Your task to perform on an android device: toggle notification dots Image 0: 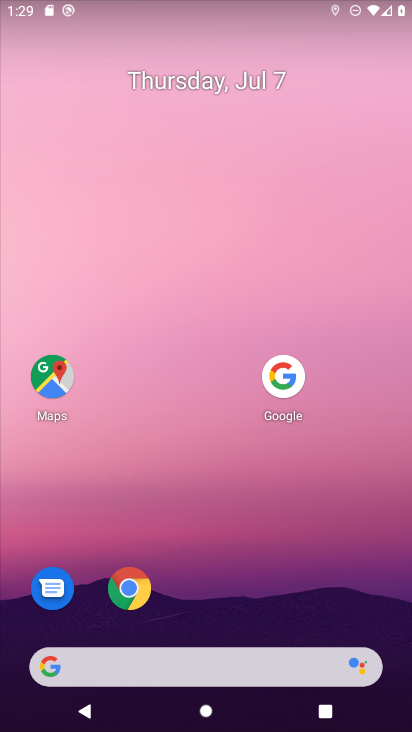
Step 0: drag from (183, 672) to (411, 88)
Your task to perform on an android device: toggle notification dots Image 1: 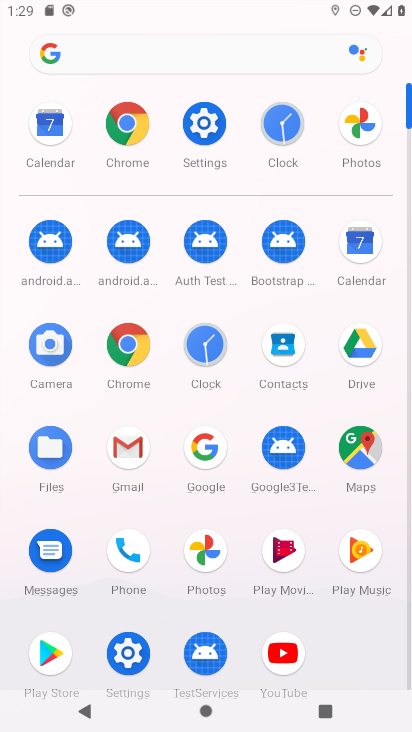
Step 1: click (207, 122)
Your task to perform on an android device: toggle notification dots Image 2: 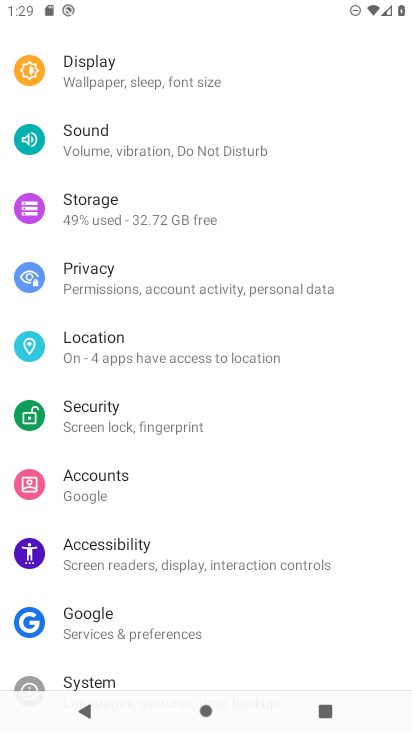
Step 2: drag from (235, 126) to (75, 594)
Your task to perform on an android device: toggle notification dots Image 3: 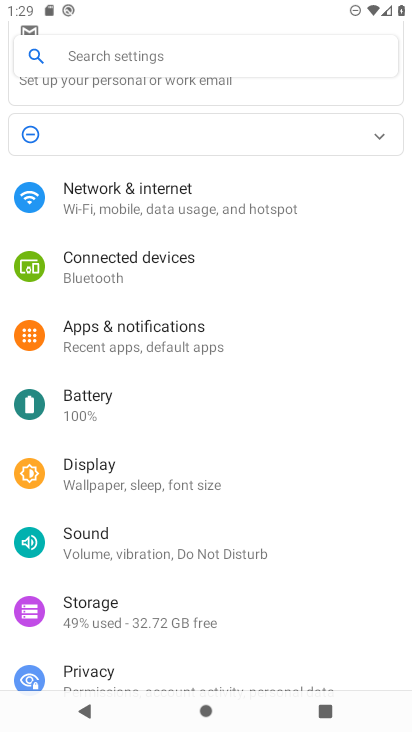
Step 3: click (157, 330)
Your task to perform on an android device: toggle notification dots Image 4: 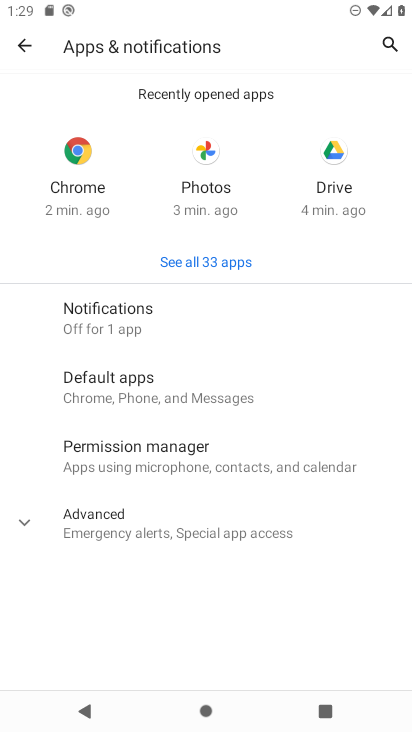
Step 4: click (144, 318)
Your task to perform on an android device: toggle notification dots Image 5: 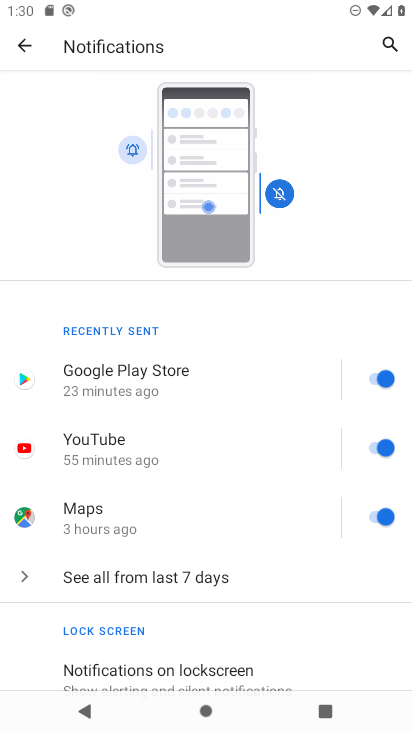
Step 5: drag from (249, 446) to (391, 132)
Your task to perform on an android device: toggle notification dots Image 6: 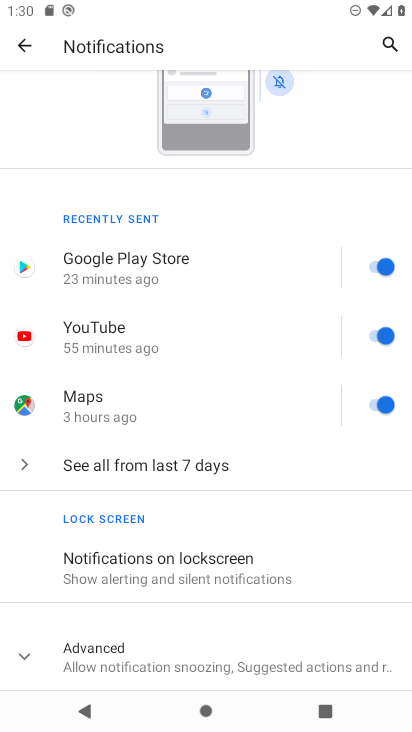
Step 6: click (117, 656)
Your task to perform on an android device: toggle notification dots Image 7: 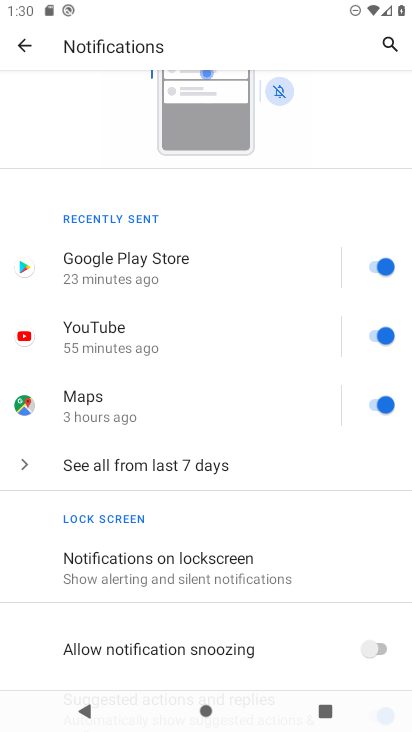
Step 7: drag from (138, 636) to (343, 321)
Your task to perform on an android device: toggle notification dots Image 8: 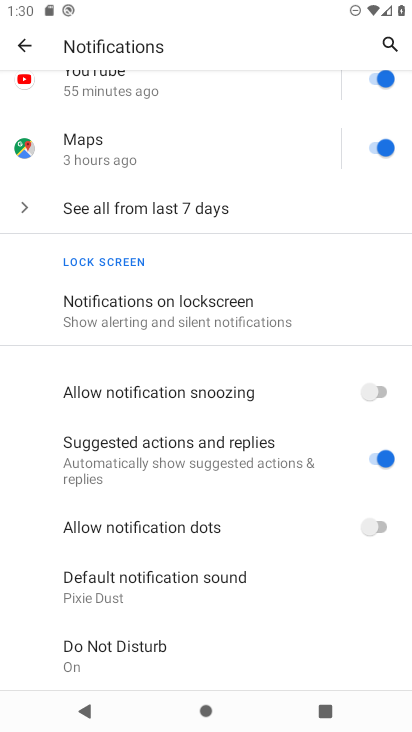
Step 8: click (384, 524)
Your task to perform on an android device: toggle notification dots Image 9: 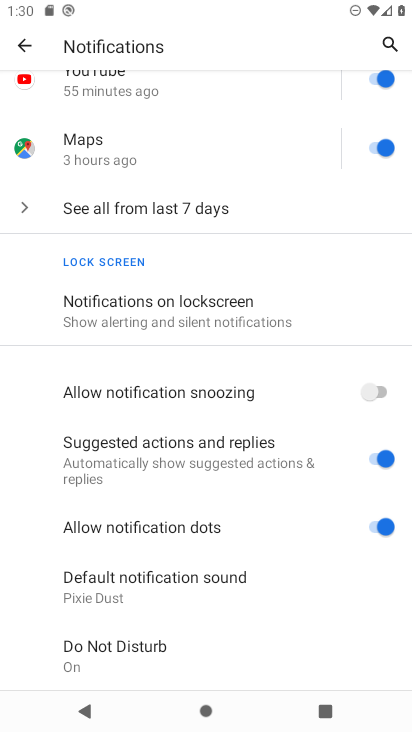
Step 9: task complete